Your task to perform on an android device: Go to Google maps Image 0: 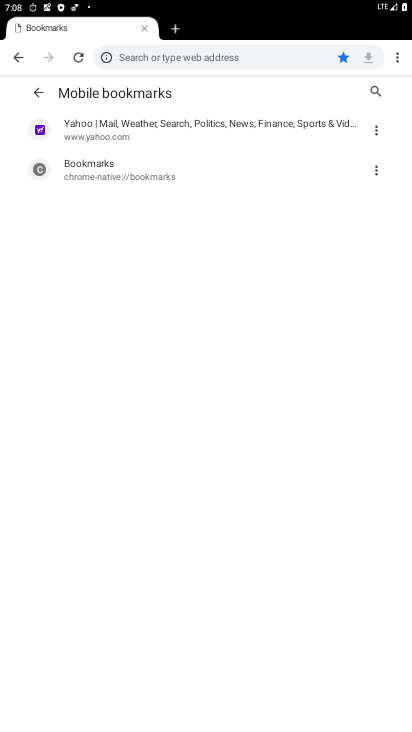
Step 0: press home button
Your task to perform on an android device: Go to Google maps Image 1: 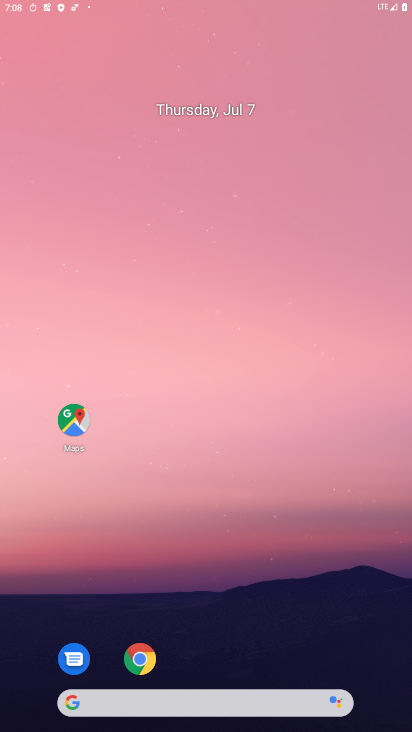
Step 1: drag from (381, 704) to (212, 87)
Your task to perform on an android device: Go to Google maps Image 2: 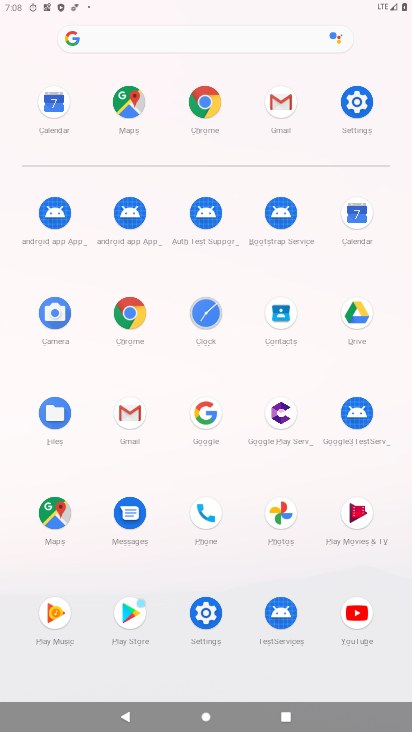
Step 2: click (44, 510)
Your task to perform on an android device: Go to Google maps Image 3: 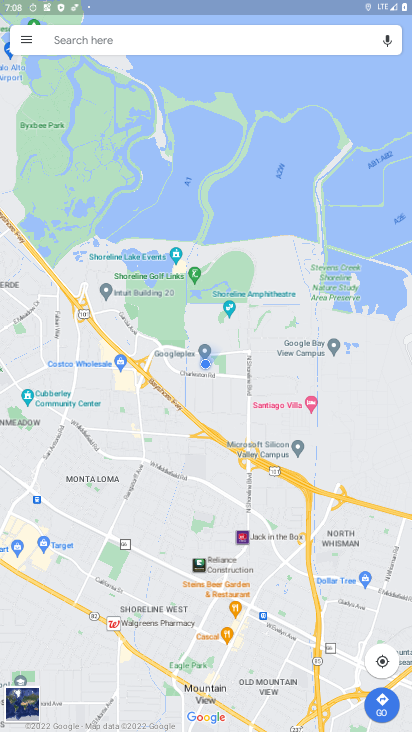
Step 3: task complete